Your task to perform on an android device: star an email in the gmail app Image 0: 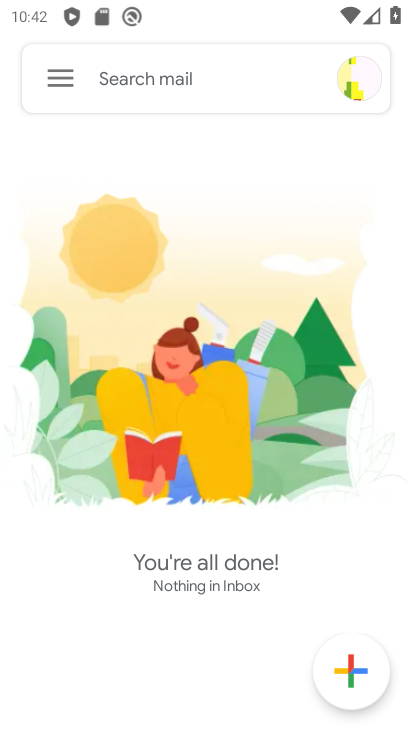
Step 0: task impossible